Your task to perform on an android device: Open calendar and show me the second week of next month Image 0: 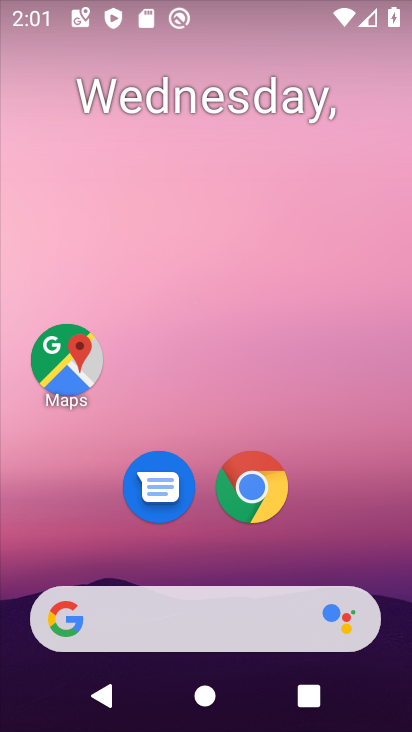
Step 0: drag from (316, 532) to (232, 128)
Your task to perform on an android device: Open calendar and show me the second week of next month Image 1: 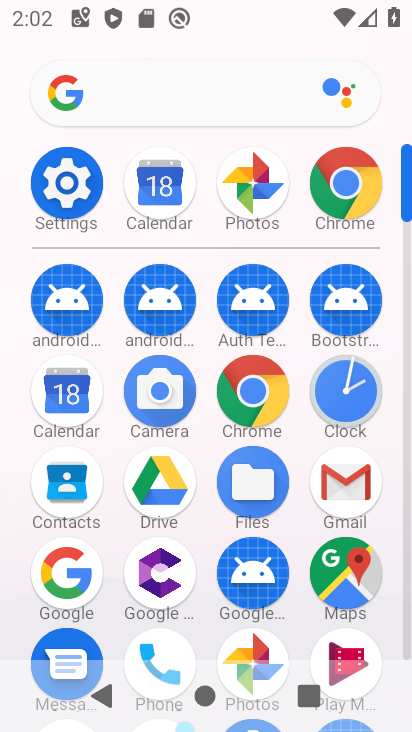
Step 1: click (68, 392)
Your task to perform on an android device: Open calendar and show me the second week of next month Image 2: 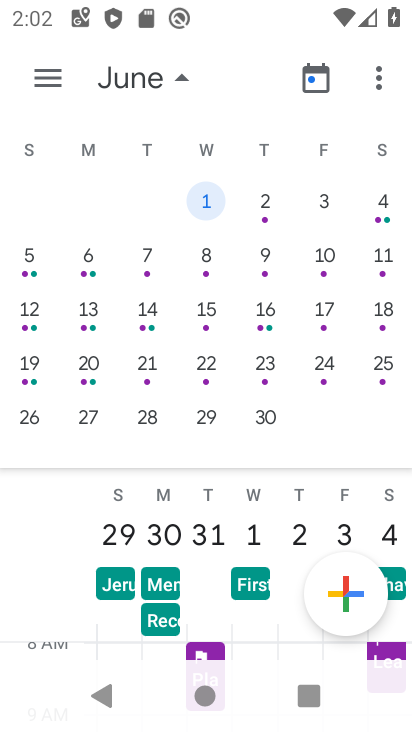
Step 2: click (207, 255)
Your task to perform on an android device: Open calendar and show me the second week of next month Image 3: 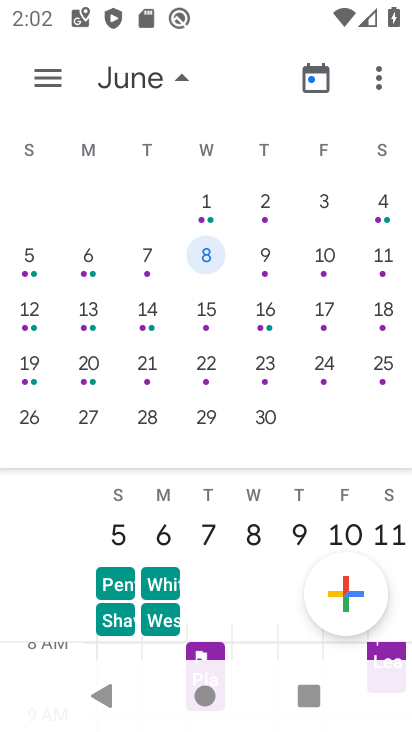
Step 3: task complete